Your task to perform on an android device: Open network settings Image 0: 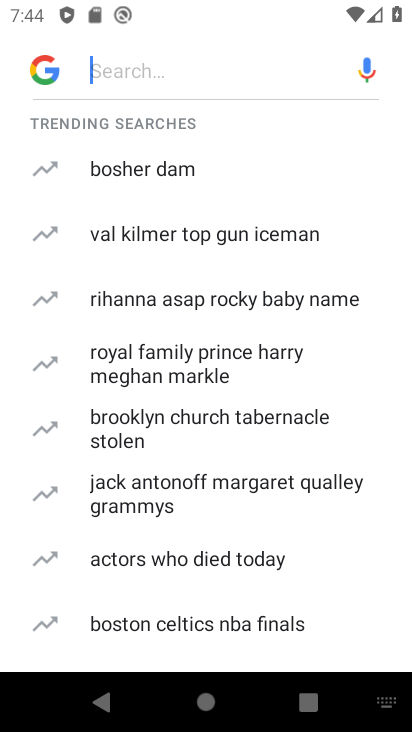
Step 0: press home button
Your task to perform on an android device: Open network settings Image 1: 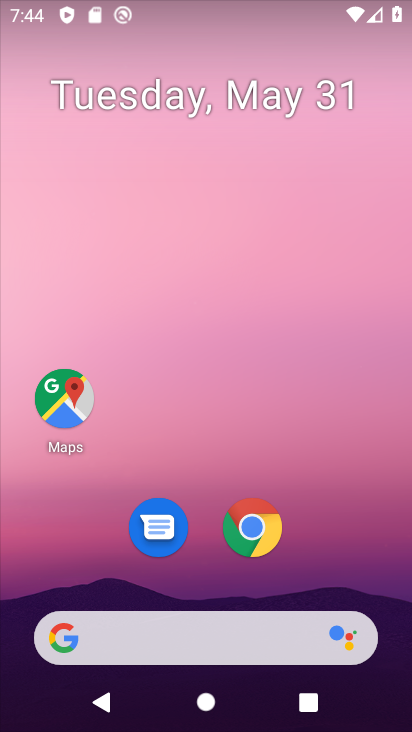
Step 1: drag from (303, 478) to (256, 171)
Your task to perform on an android device: Open network settings Image 2: 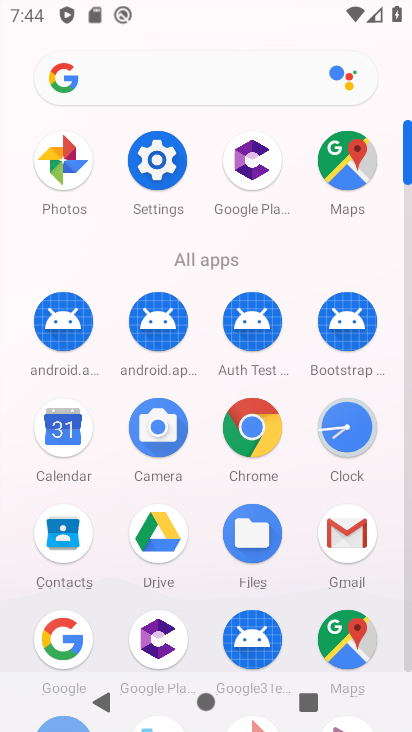
Step 2: click (154, 156)
Your task to perform on an android device: Open network settings Image 3: 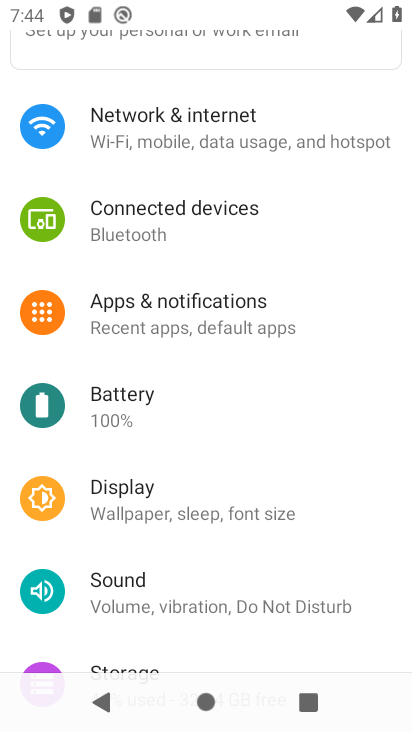
Step 3: click (178, 122)
Your task to perform on an android device: Open network settings Image 4: 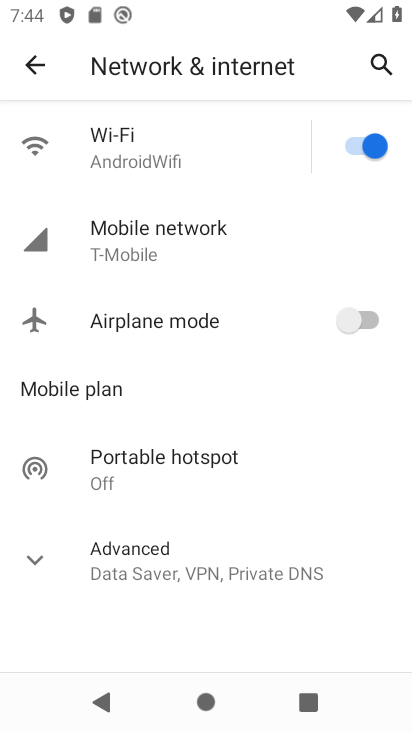
Step 4: task complete